Your task to perform on an android device: all mails in gmail Image 0: 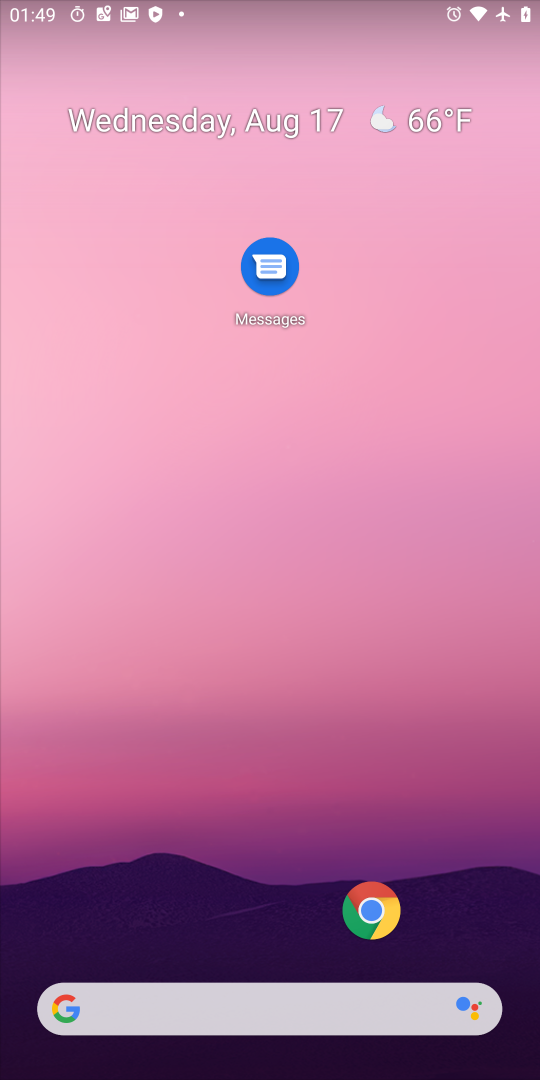
Step 0: drag from (125, 858) to (152, 4)
Your task to perform on an android device: all mails in gmail Image 1: 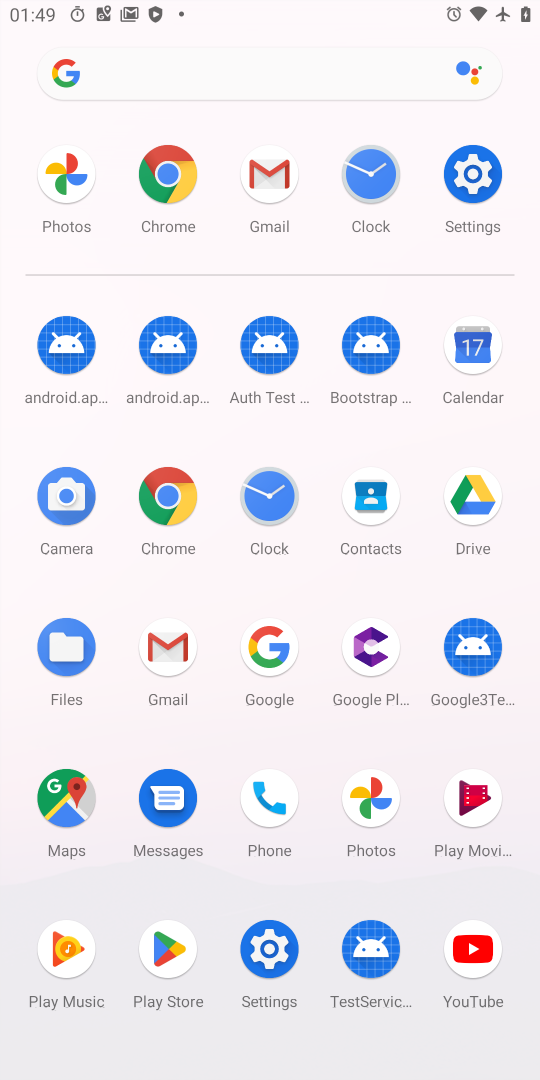
Step 1: click (162, 641)
Your task to perform on an android device: all mails in gmail Image 2: 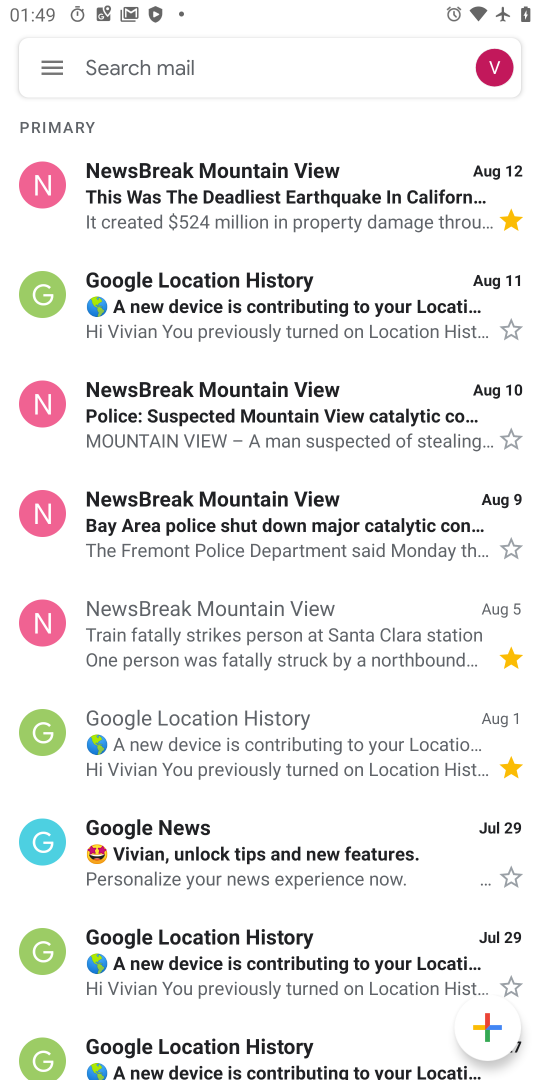
Step 2: click (51, 63)
Your task to perform on an android device: all mails in gmail Image 3: 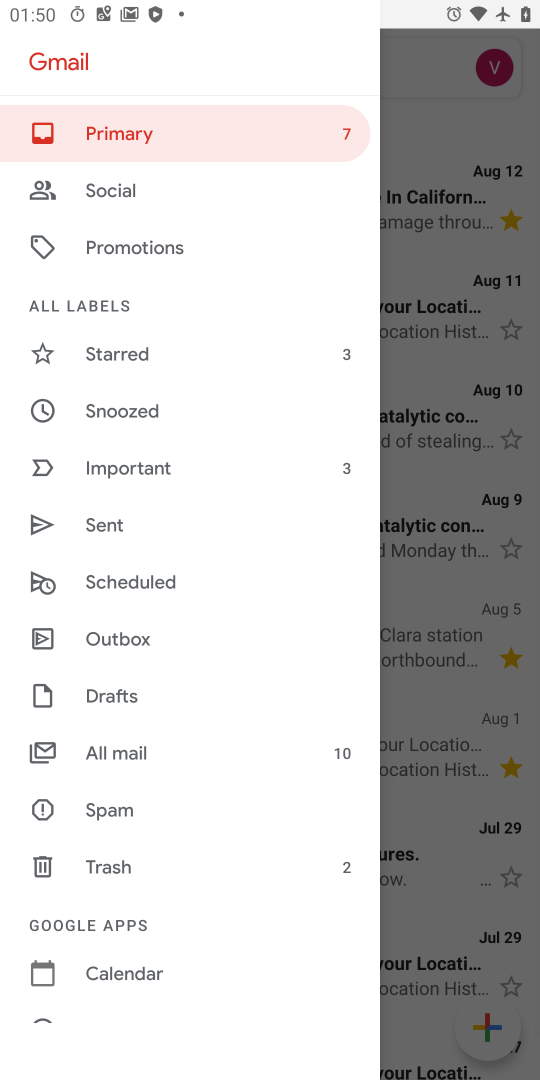
Step 3: click (137, 748)
Your task to perform on an android device: all mails in gmail Image 4: 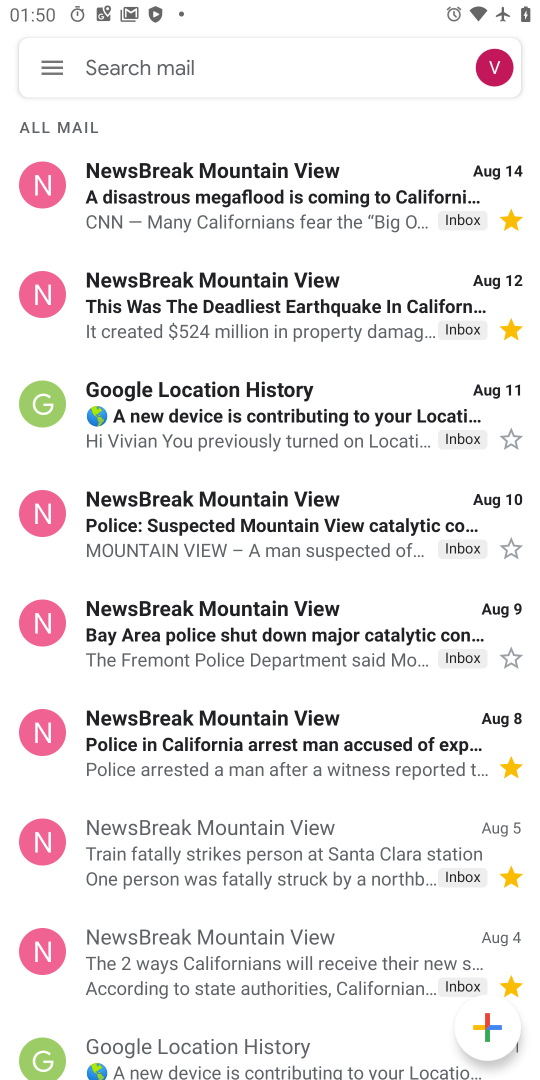
Step 4: task complete